Your task to perform on an android device: What is the news today? Image 0: 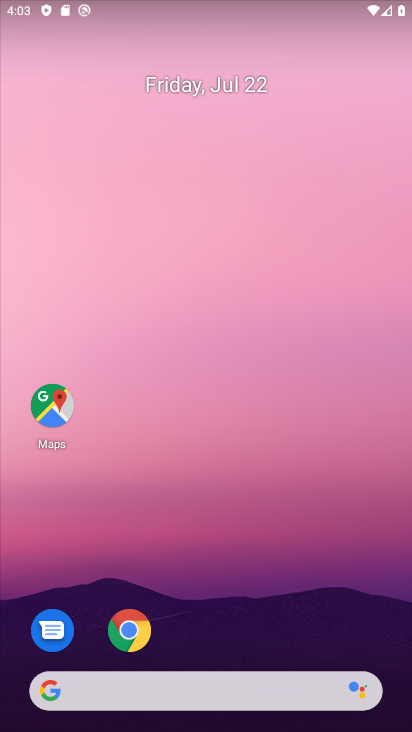
Step 0: click (159, 698)
Your task to perform on an android device: What is the news today? Image 1: 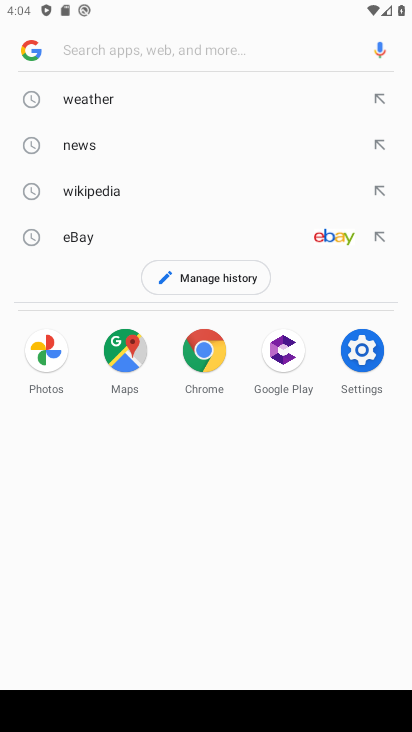
Step 1: click (71, 140)
Your task to perform on an android device: What is the news today? Image 2: 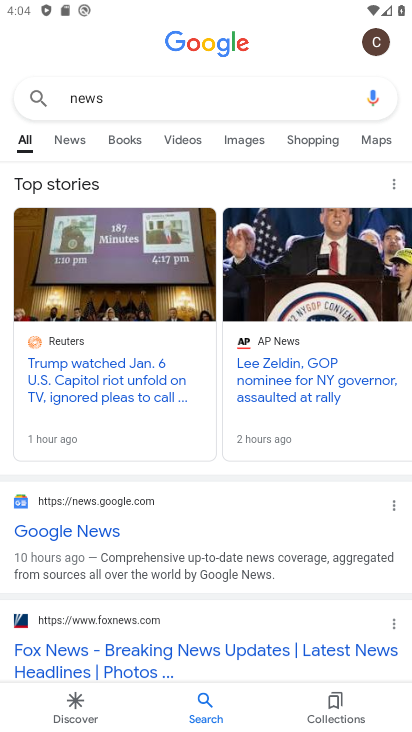
Step 2: task complete